Your task to perform on an android device: Open battery settings Image 0: 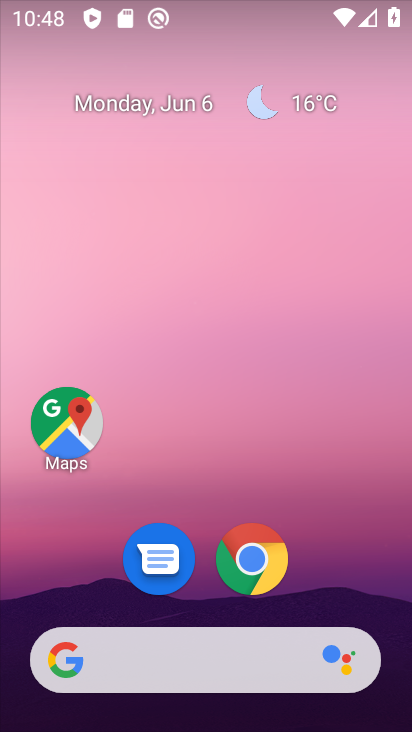
Step 0: drag from (53, 589) to (110, 308)
Your task to perform on an android device: Open battery settings Image 1: 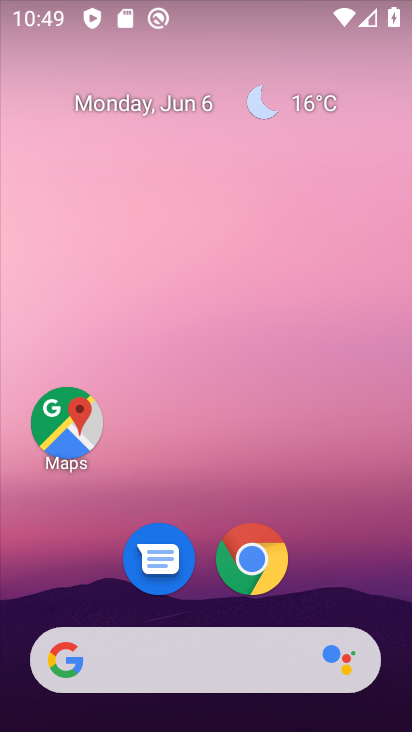
Step 1: drag from (74, 609) to (191, 220)
Your task to perform on an android device: Open battery settings Image 2: 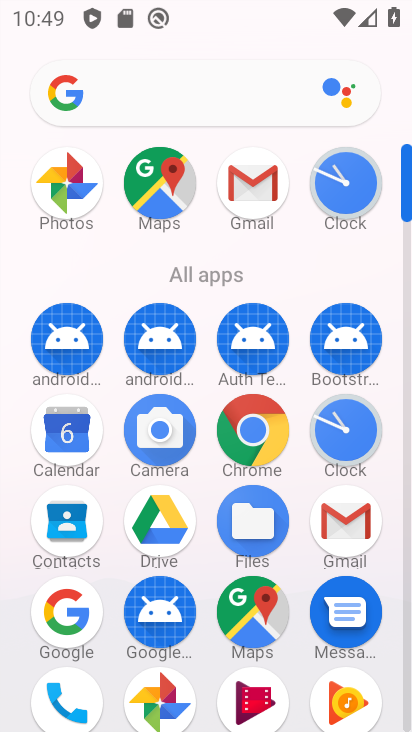
Step 2: drag from (188, 656) to (272, 292)
Your task to perform on an android device: Open battery settings Image 3: 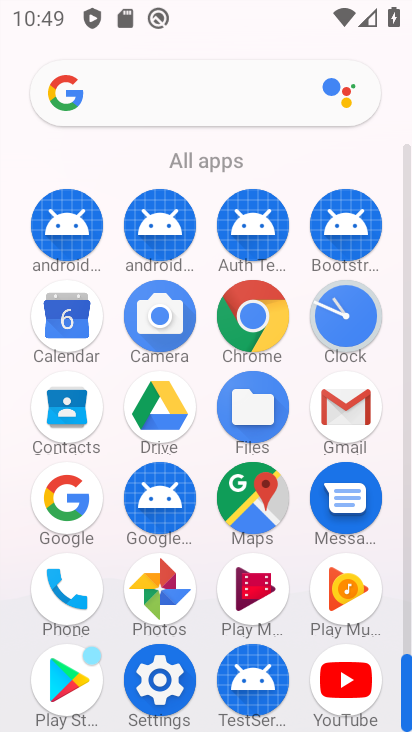
Step 3: click (149, 681)
Your task to perform on an android device: Open battery settings Image 4: 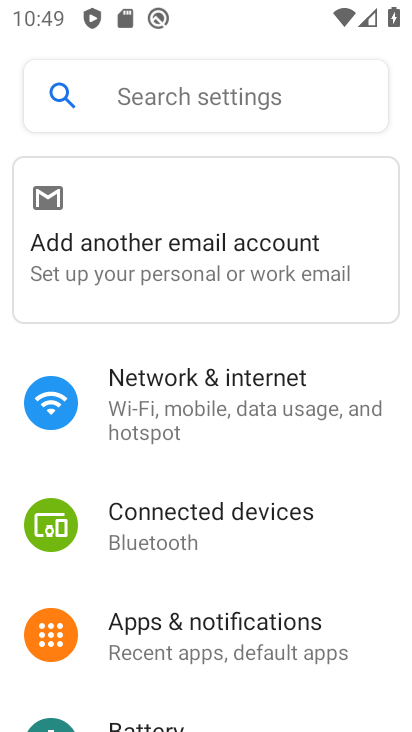
Step 4: click (163, 715)
Your task to perform on an android device: Open battery settings Image 5: 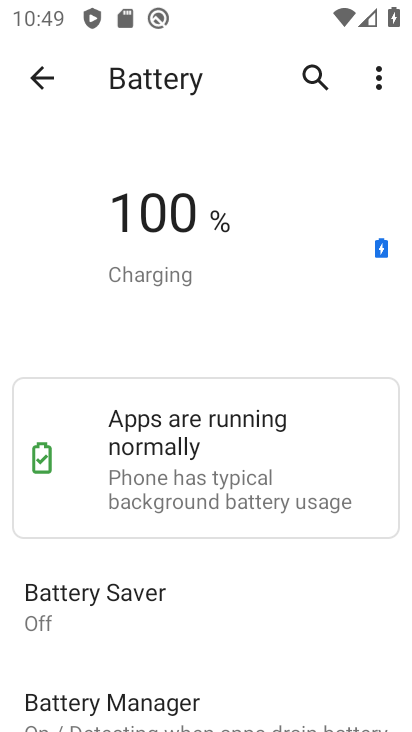
Step 5: task complete